Your task to perform on an android device: turn vacation reply on in the gmail app Image 0: 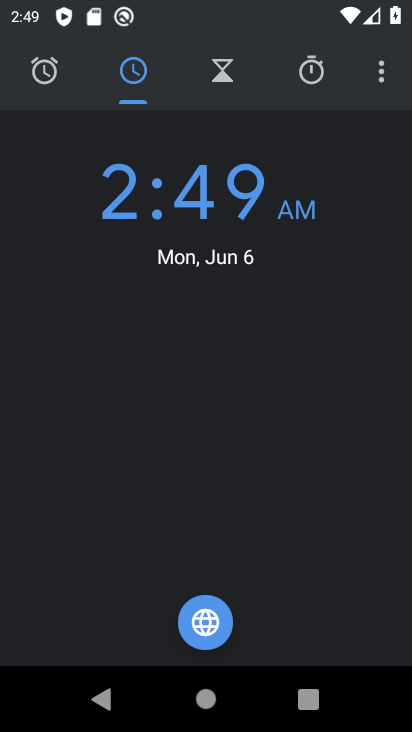
Step 0: press home button
Your task to perform on an android device: turn vacation reply on in the gmail app Image 1: 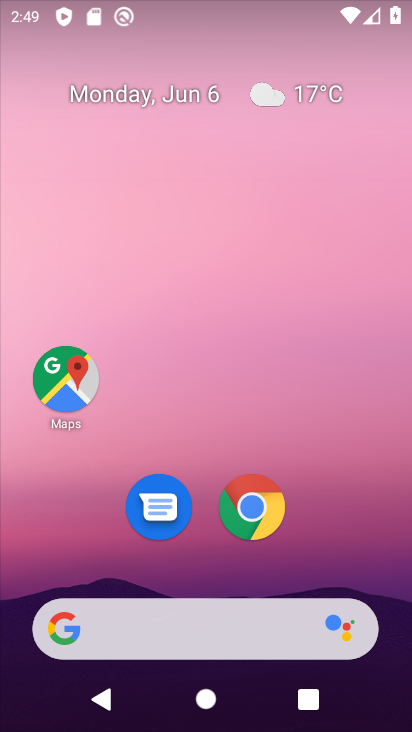
Step 1: drag from (343, 547) to (393, 119)
Your task to perform on an android device: turn vacation reply on in the gmail app Image 2: 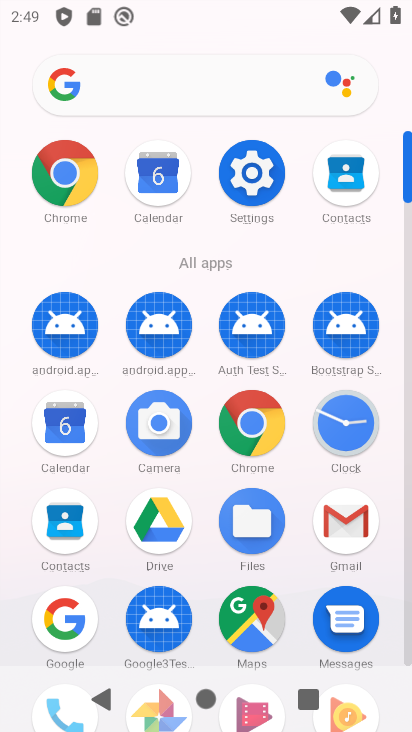
Step 2: click (331, 518)
Your task to perform on an android device: turn vacation reply on in the gmail app Image 3: 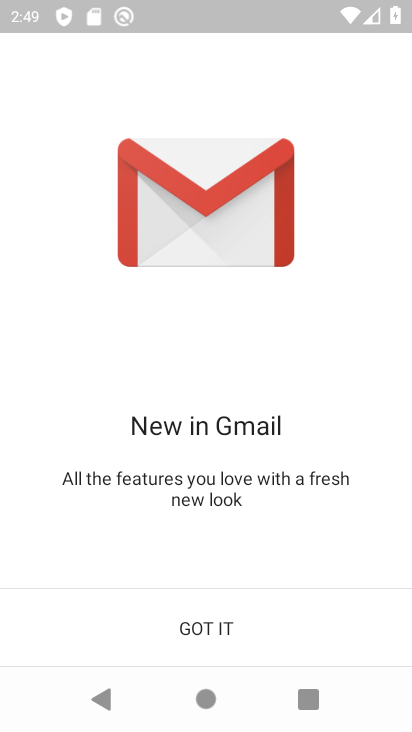
Step 3: click (199, 624)
Your task to perform on an android device: turn vacation reply on in the gmail app Image 4: 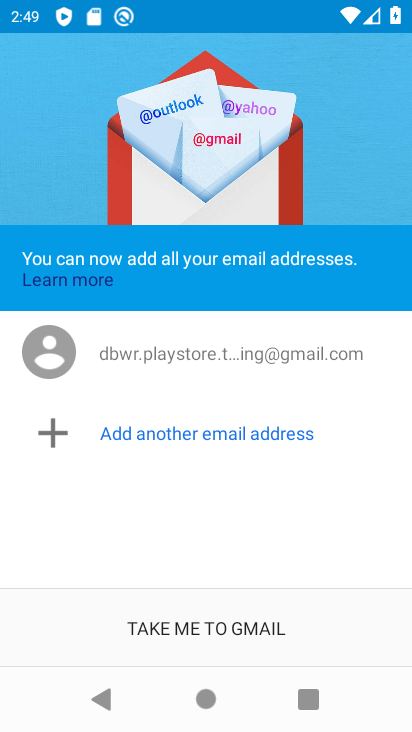
Step 4: click (200, 624)
Your task to perform on an android device: turn vacation reply on in the gmail app Image 5: 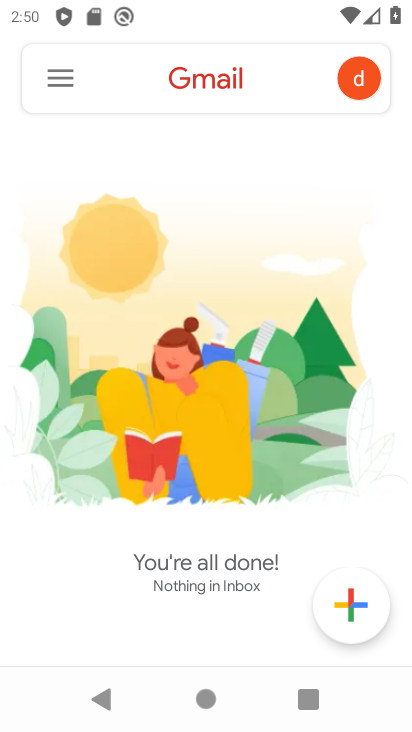
Step 5: click (60, 77)
Your task to perform on an android device: turn vacation reply on in the gmail app Image 6: 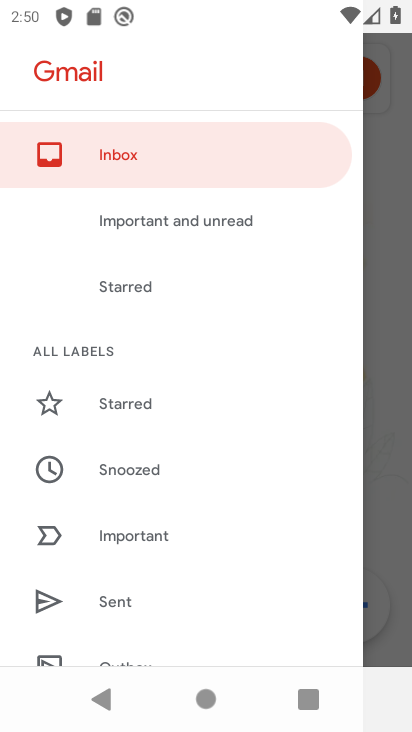
Step 6: drag from (275, 643) to (319, 92)
Your task to perform on an android device: turn vacation reply on in the gmail app Image 7: 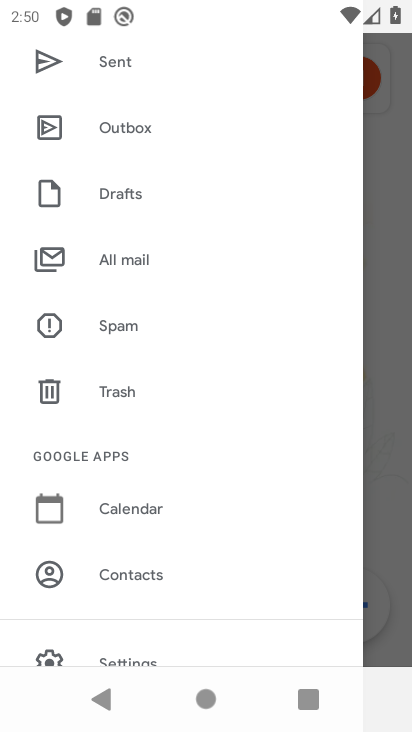
Step 7: drag from (257, 655) to (322, 413)
Your task to perform on an android device: turn vacation reply on in the gmail app Image 8: 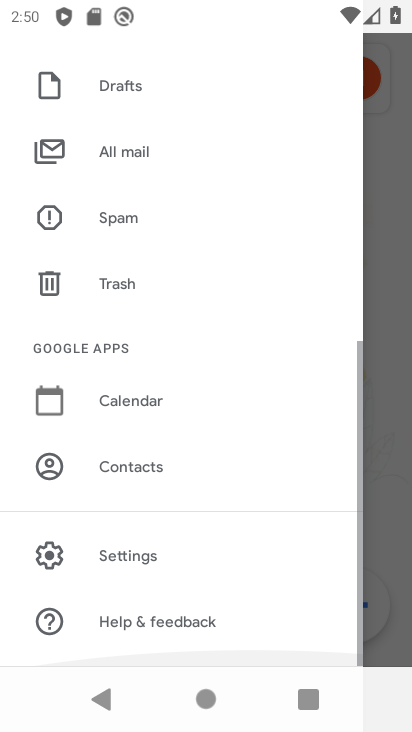
Step 8: click (132, 559)
Your task to perform on an android device: turn vacation reply on in the gmail app Image 9: 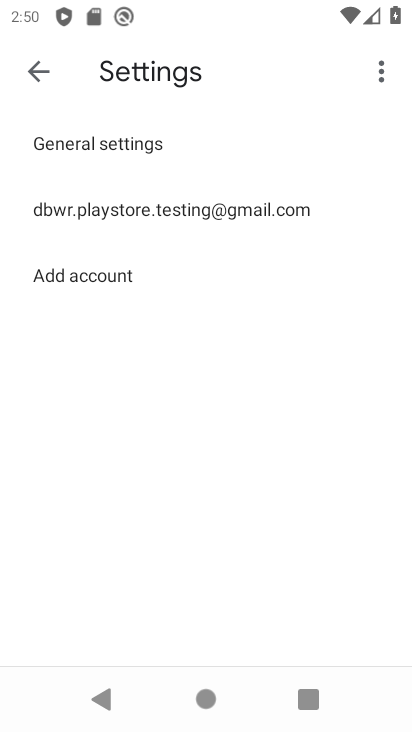
Step 9: click (227, 213)
Your task to perform on an android device: turn vacation reply on in the gmail app Image 10: 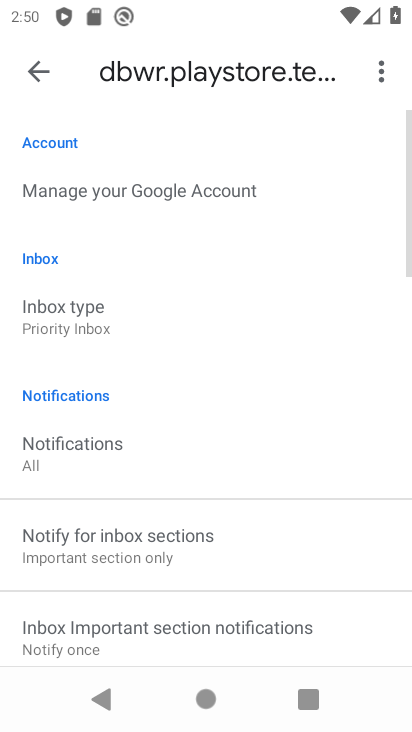
Step 10: drag from (286, 488) to (308, 143)
Your task to perform on an android device: turn vacation reply on in the gmail app Image 11: 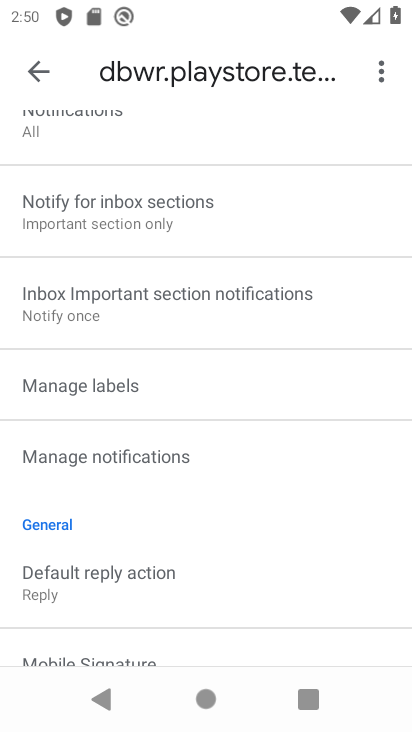
Step 11: drag from (250, 535) to (299, 106)
Your task to perform on an android device: turn vacation reply on in the gmail app Image 12: 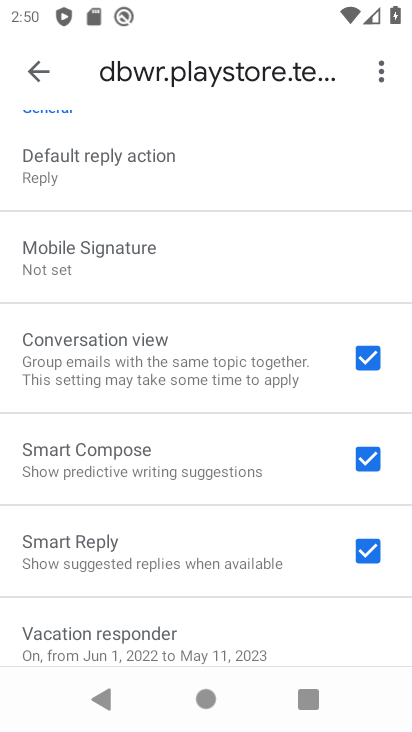
Step 12: click (167, 636)
Your task to perform on an android device: turn vacation reply on in the gmail app Image 13: 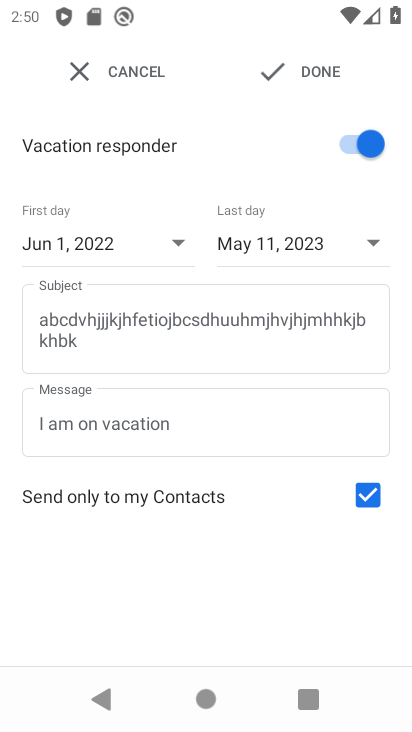
Step 13: task complete